Your task to perform on an android device: Open Google Chrome and click the shortcut for Amazon.com Image 0: 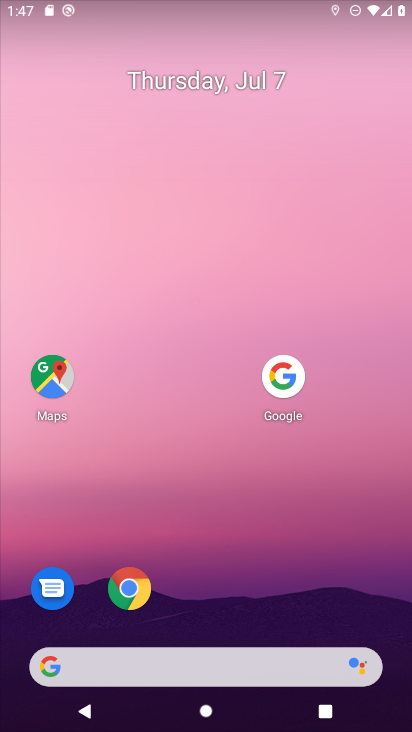
Step 0: click (129, 592)
Your task to perform on an android device: Open Google Chrome and click the shortcut for Amazon.com Image 1: 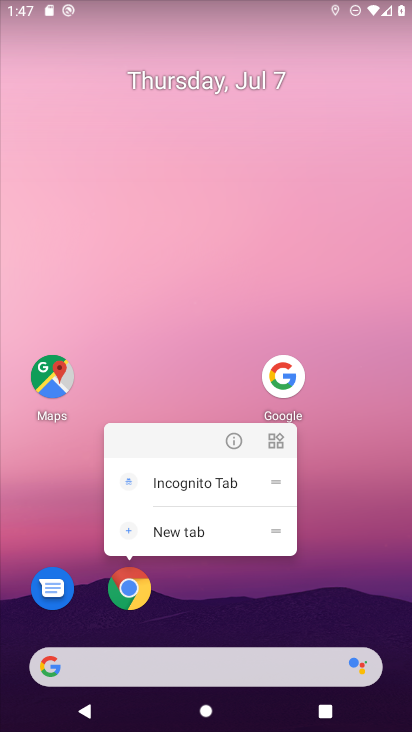
Step 1: click (130, 588)
Your task to perform on an android device: Open Google Chrome and click the shortcut for Amazon.com Image 2: 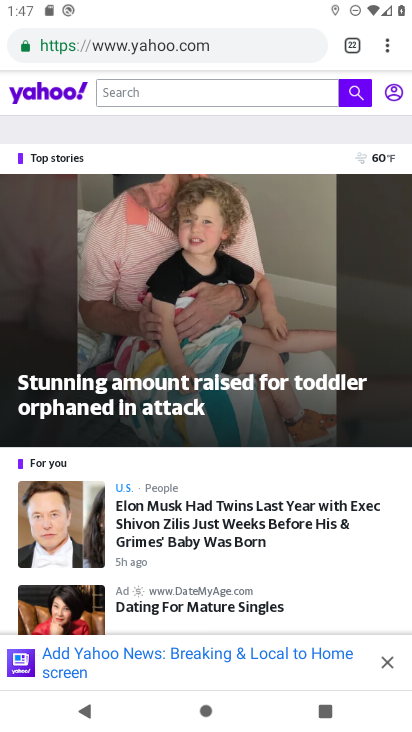
Step 2: drag from (386, 48) to (280, 96)
Your task to perform on an android device: Open Google Chrome and click the shortcut for Amazon.com Image 3: 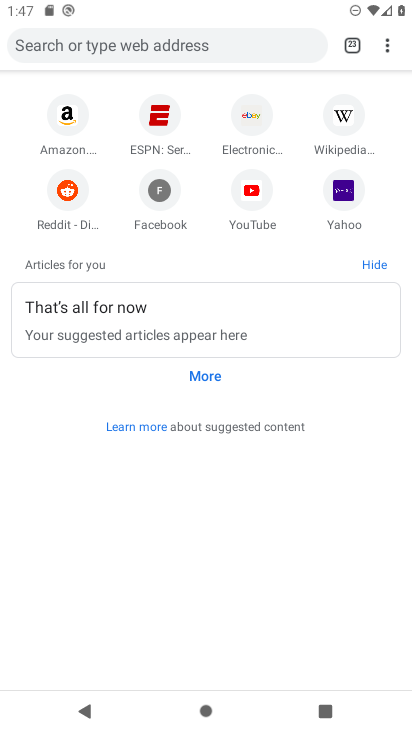
Step 3: click (62, 111)
Your task to perform on an android device: Open Google Chrome and click the shortcut for Amazon.com Image 4: 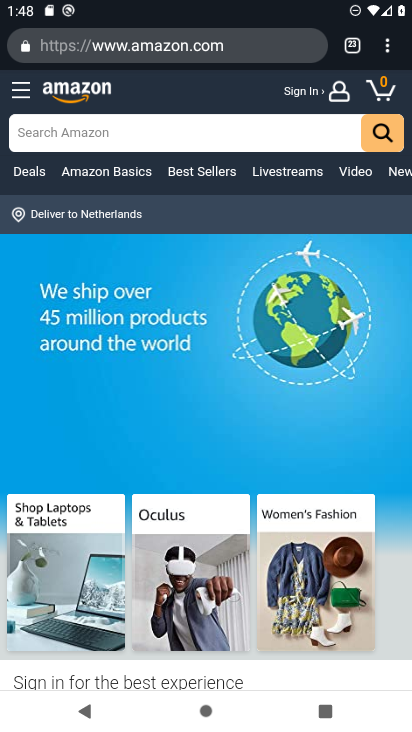
Step 4: task complete